Your task to perform on an android device: uninstall "Google Play Music" Image 0: 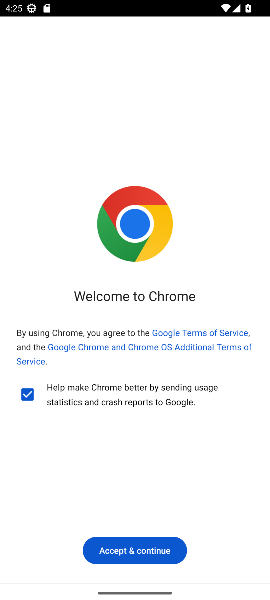
Step 0: press home button
Your task to perform on an android device: uninstall "Google Play Music" Image 1: 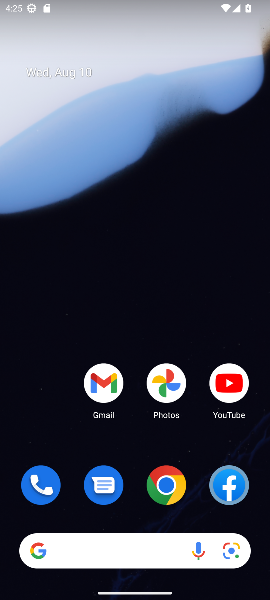
Step 1: drag from (159, 517) to (179, 328)
Your task to perform on an android device: uninstall "Google Play Music" Image 2: 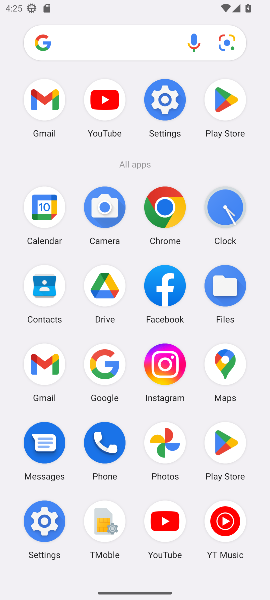
Step 2: click (224, 98)
Your task to perform on an android device: uninstall "Google Play Music" Image 3: 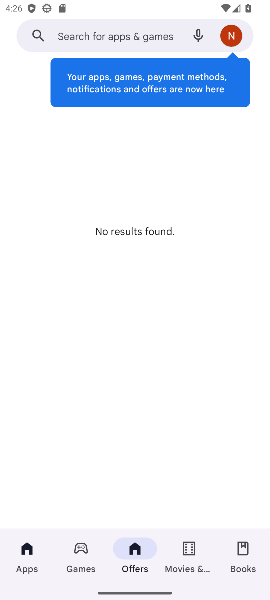
Step 3: click (84, 41)
Your task to perform on an android device: uninstall "Google Play Music" Image 4: 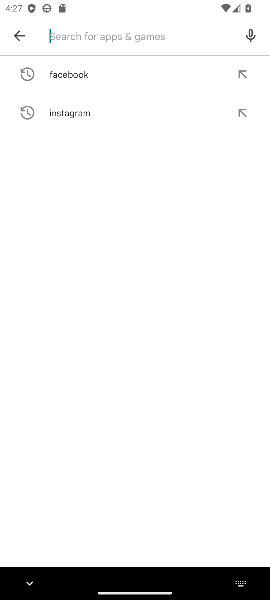
Step 4: type "google play music"
Your task to perform on an android device: uninstall "Google Play Music" Image 5: 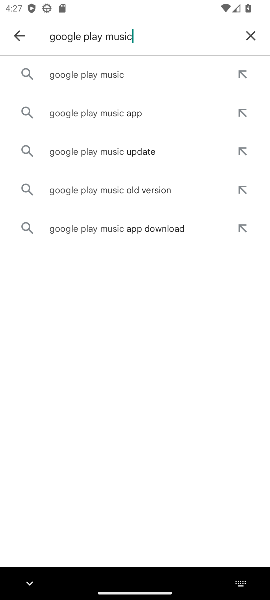
Step 5: click (102, 71)
Your task to perform on an android device: uninstall "Google Play Music" Image 6: 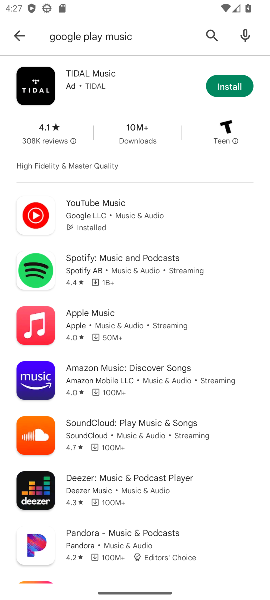
Step 6: task complete